Your task to perform on an android device: Go to notification settings Image 0: 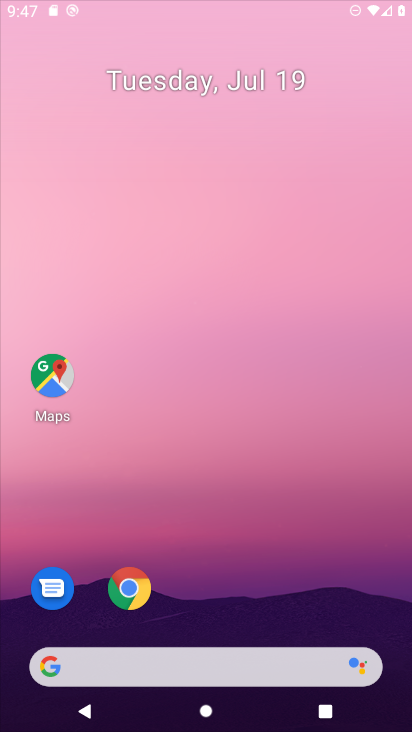
Step 0: click (309, 101)
Your task to perform on an android device: Go to notification settings Image 1: 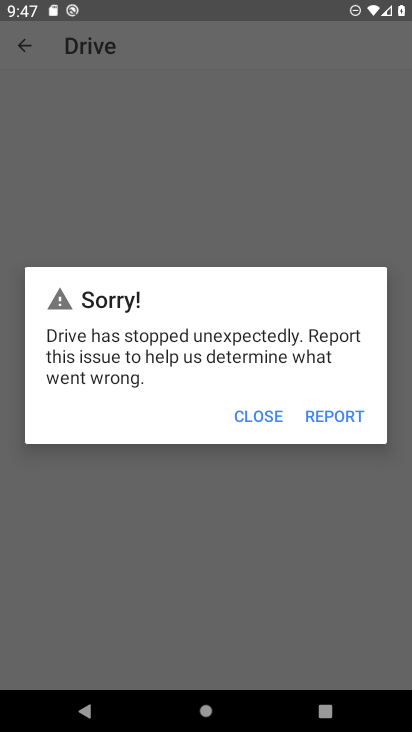
Step 1: click (245, 406)
Your task to perform on an android device: Go to notification settings Image 2: 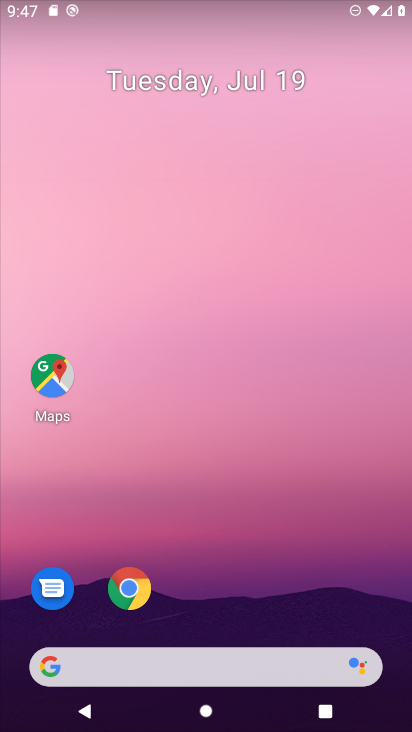
Step 2: drag from (235, 529) to (235, 112)
Your task to perform on an android device: Go to notification settings Image 3: 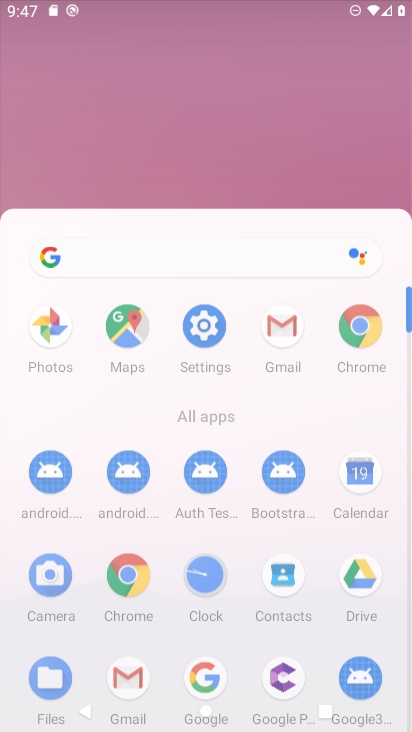
Step 3: drag from (243, 594) to (246, 309)
Your task to perform on an android device: Go to notification settings Image 4: 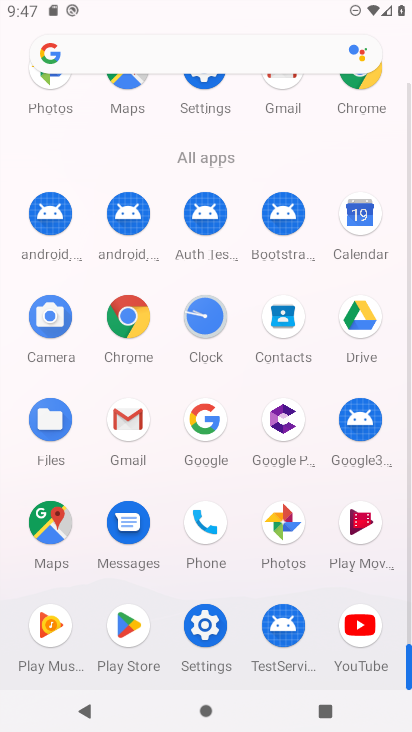
Step 4: click (207, 82)
Your task to perform on an android device: Go to notification settings Image 5: 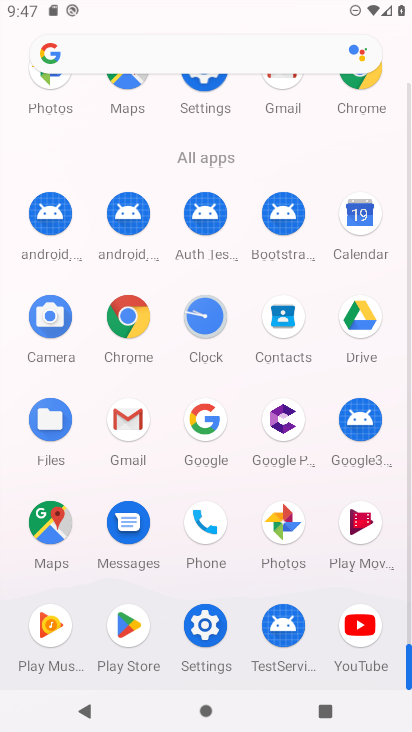
Step 5: click (206, 82)
Your task to perform on an android device: Go to notification settings Image 6: 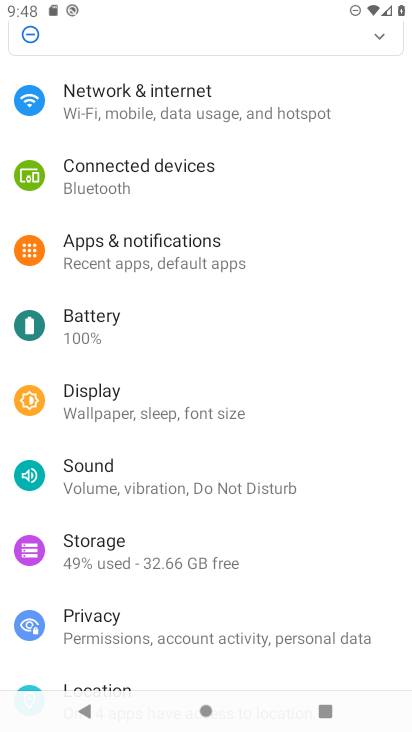
Step 6: click (105, 251)
Your task to perform on an android device: Go to notification settings Image 7: 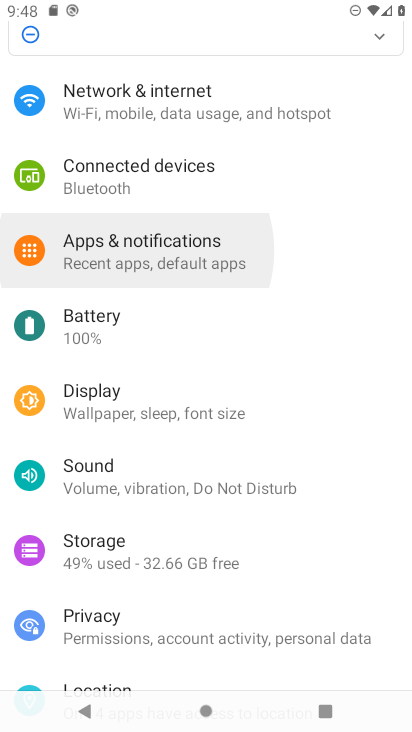
Step 7: click (104, 246)
Your task to perform on an android device: Go to notification settings Image 8: 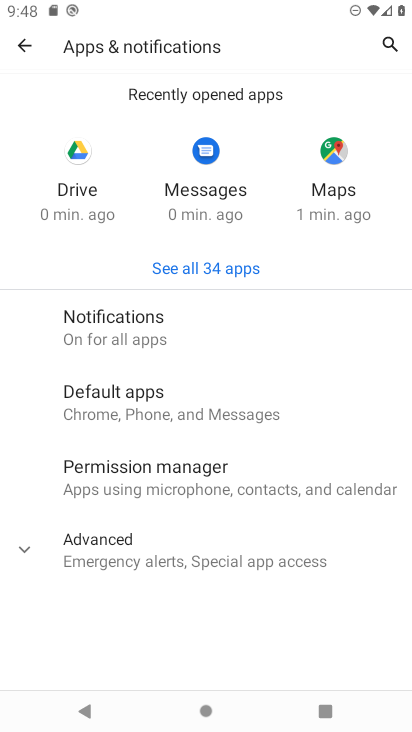
Step 8: task complete